Your task to perform on an android device: open app "Airtel Thanks" (install if not already installed) and go to login screen Image 0: 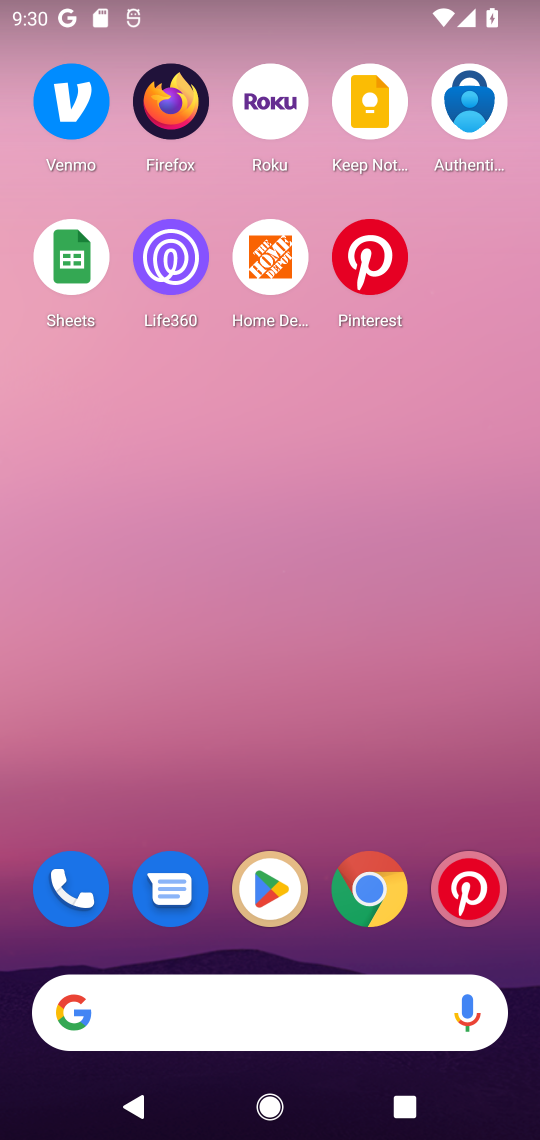
Step 0: click (287, 890)
Your task to perform on an android device: open app "Airtel Thanks" (install if not already installed) and go to login screen Image 1: 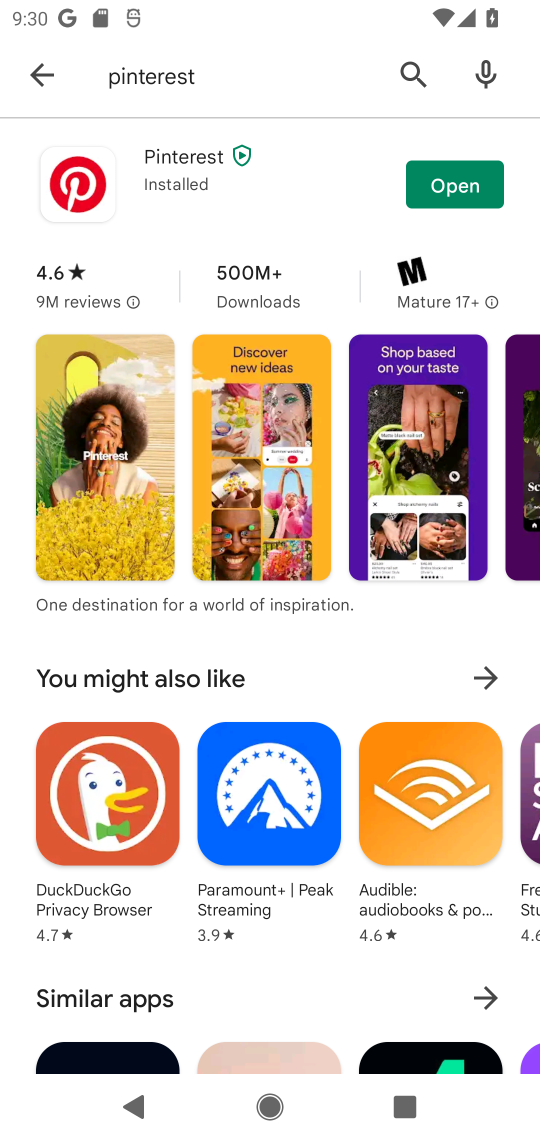
Step 1: click (40, 75)
Your task to perform on an android device: open app "Airtel Thanks" (install if not already installed) and go to login screen Image 2: 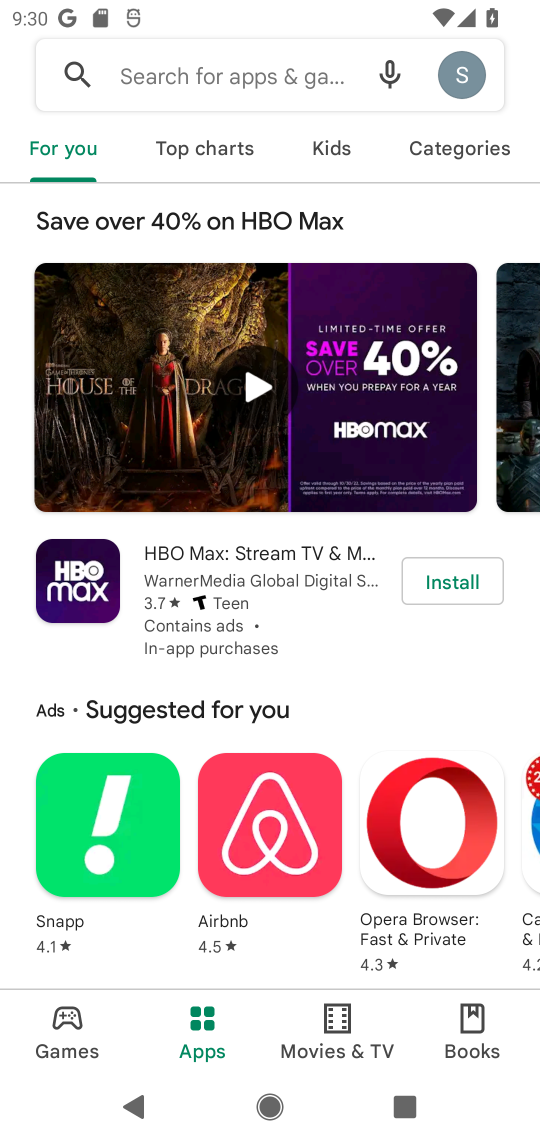
Step 2: click (159, 75)
Your task to perform on an android device: open app "Airtel Thanks" (install if not already installed) and go to login screen Image 3: 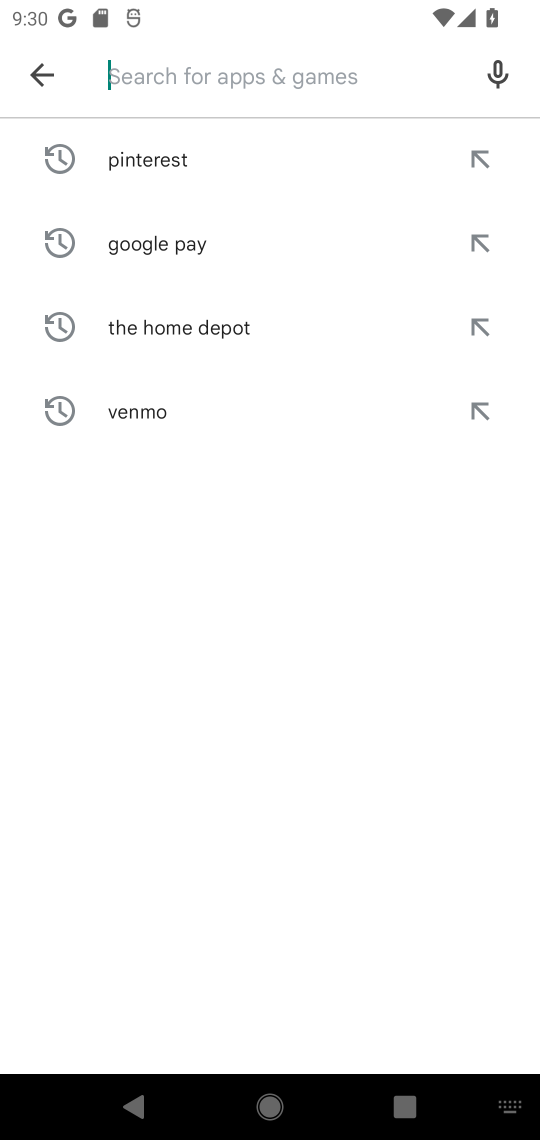
Step 3: type "Airtel Thanks"
Your task to perform on an android device: open app "Airtel Thanks" (install if not already installed) and go to login screen Image 4: 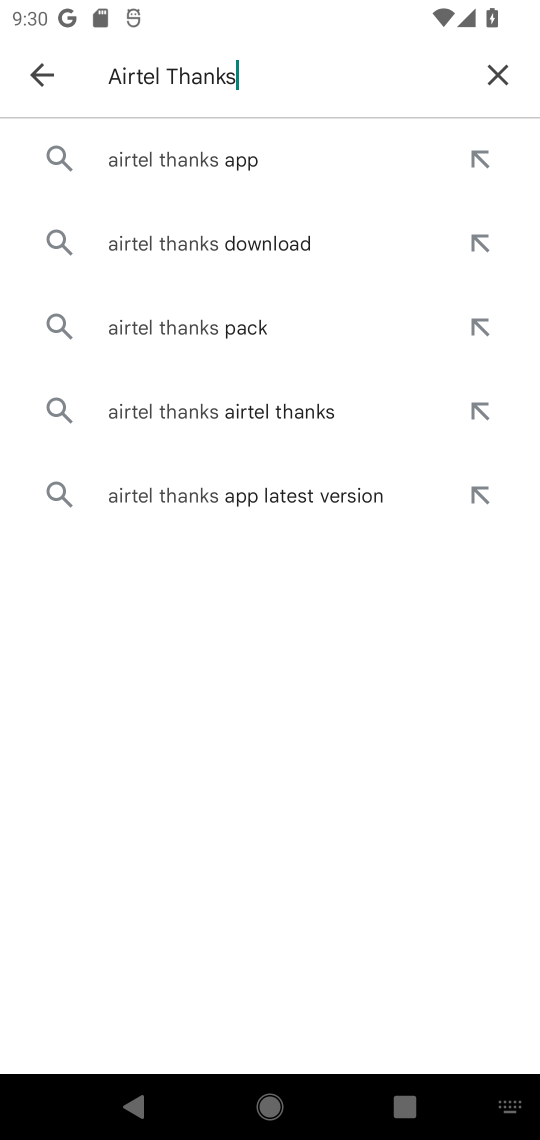
Step 4: click (144, 151)
Your task to perform on an android device: open app "Airtel Thanks" (install if not already installed) and go to login screen Image 5: 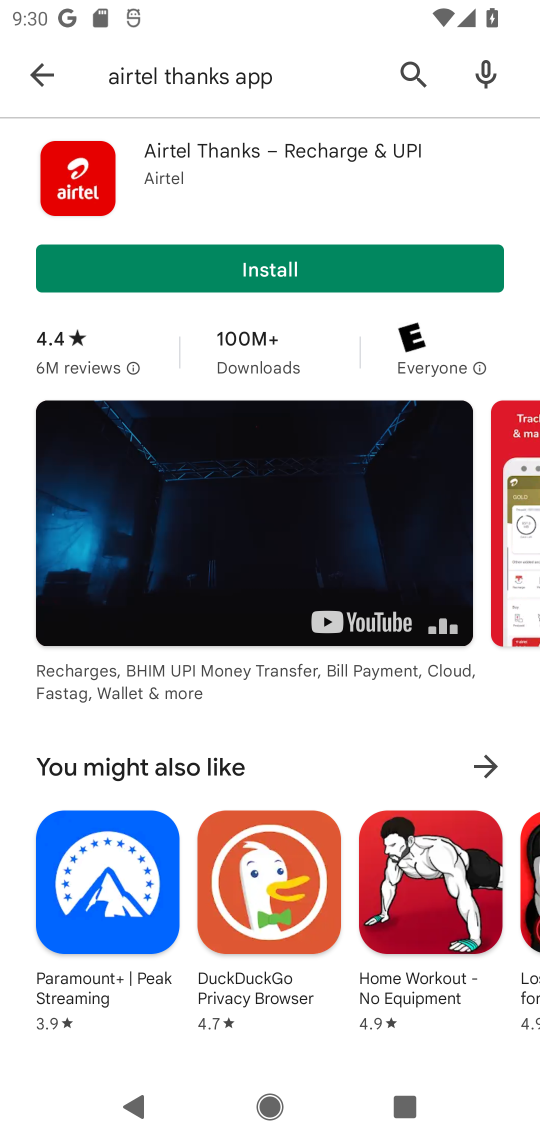
Step 5: click (249, 272)
Your task to perform on an android device: open app "Airtel Thanks" (install if not already installed) and go to login screen Image 6: 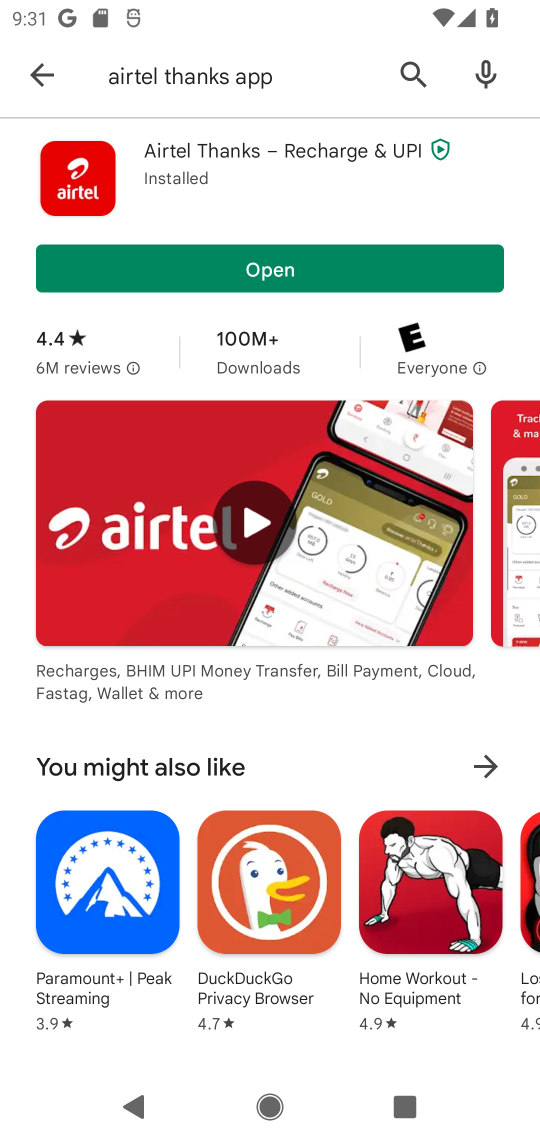
Step 6: click (281, 269)
Your task to perform on an android device: open app "Airtel Thanks" (install if not already installed) and go to login screen Image 7: 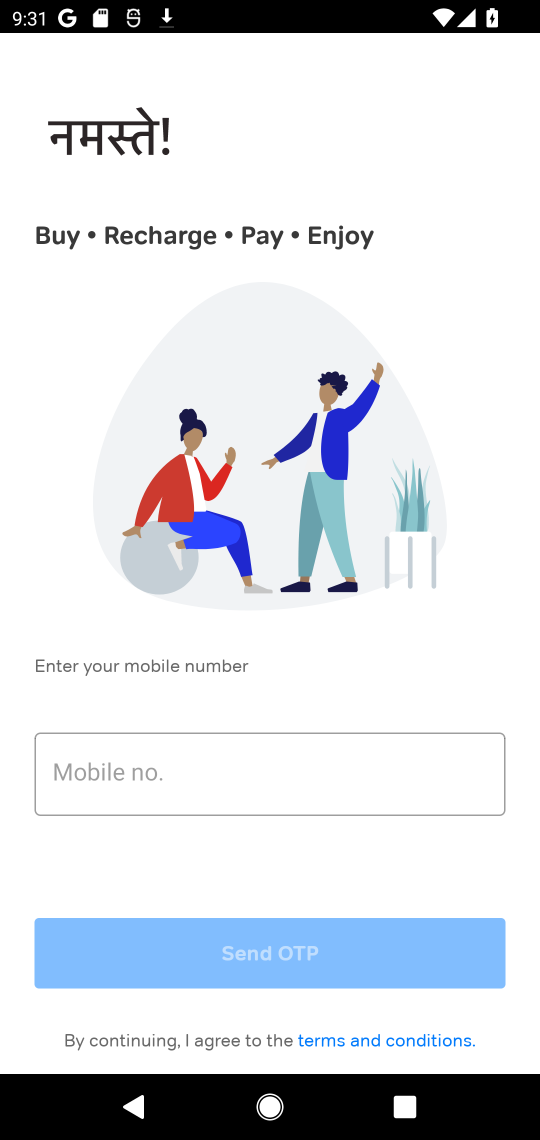
Step 7: task complete